Your task to perform on an android device: Go to wifi settings Image 0: 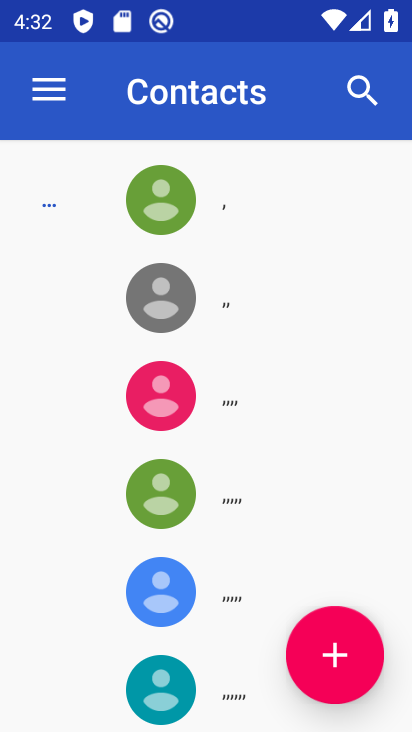
Step 0: press home button
Your task to perform on an android device: Go to wifi settings Image 1: 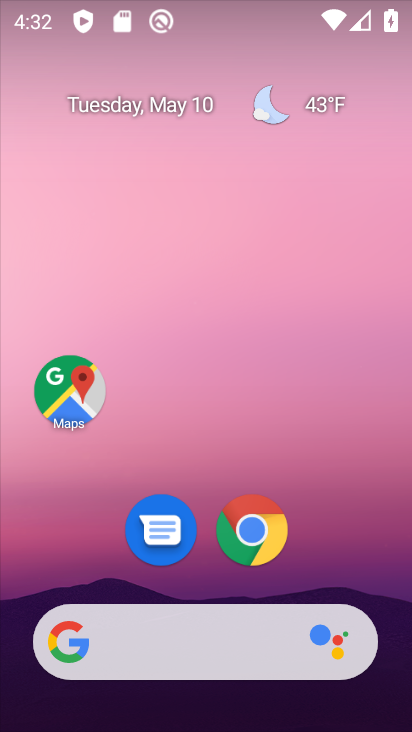
Step 1: drag from (348, 570) to (323, 103)
Your task to perform on an android device: Go to wifi settings Image 2: 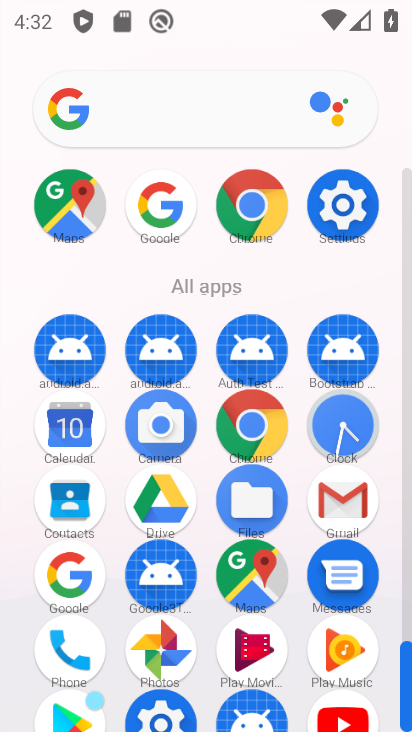
Step 2: click (347, 277)
Your task to perform on an android device: Go to wifi settings Image 3: 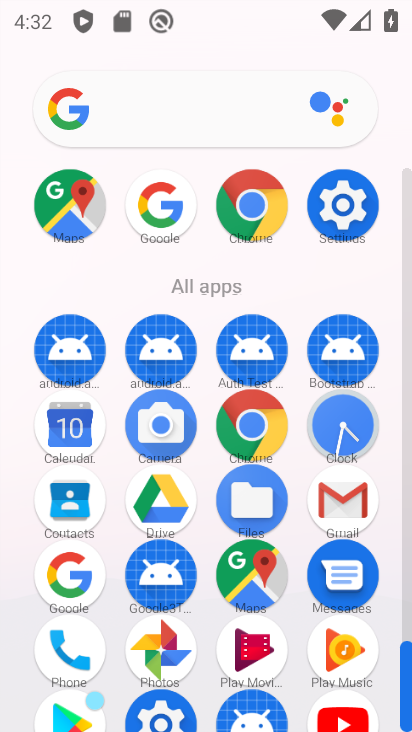
Step 3: click (359, 200)
Your task to perform on an android device: Go to wifi settings Image 4: 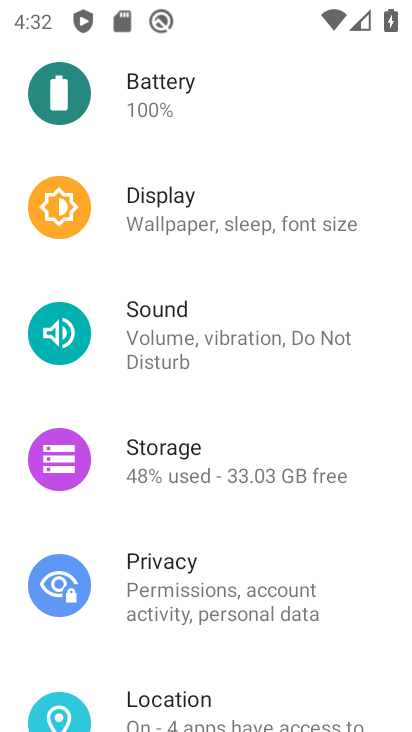
Step 4: drag from (264, 143) to (240, 478)
Your task to perform on an android device: Go to wifi settings Image 5: 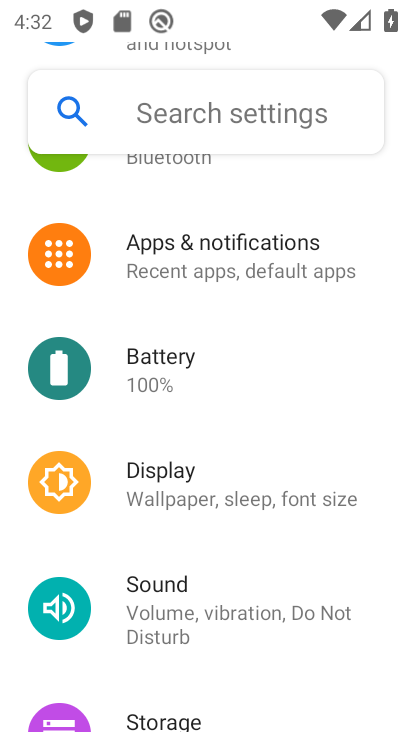
Step 5: drag from (282, 177) to (289, 487)
Your task to perform on an android device: Go to wifi settings Image 6: 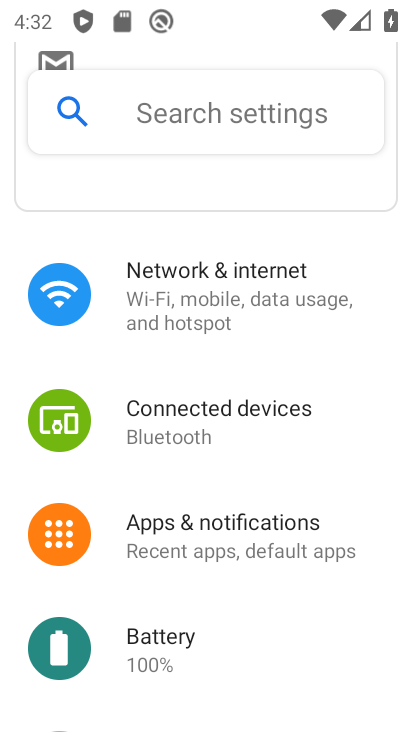
Step 6: click (179, 298)
Your task to perform on an android device: Go to wifi settings Image 7: 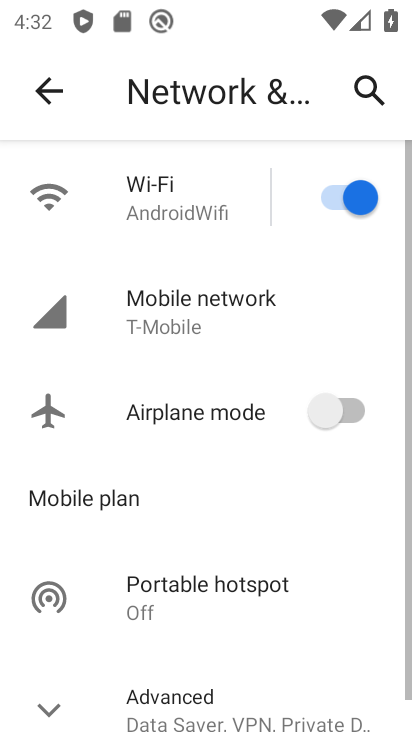
Step 7: click (199, 233)
Your task to perform on an android device: Go to wifi settings Image 8: 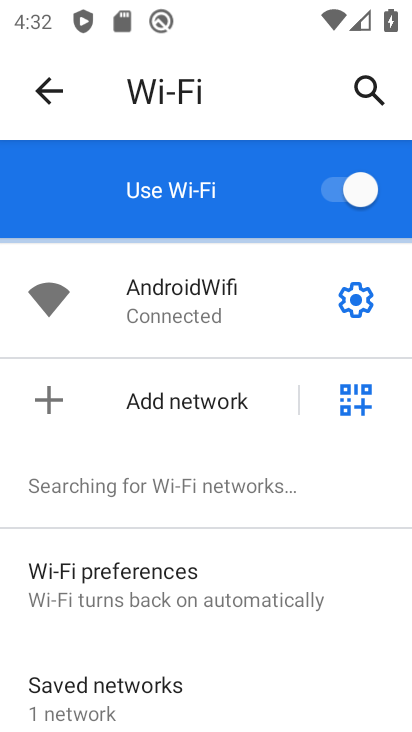
Step 8: click (349, 302)
Your task to perform on an android device: Go to wifi settings Image 9: 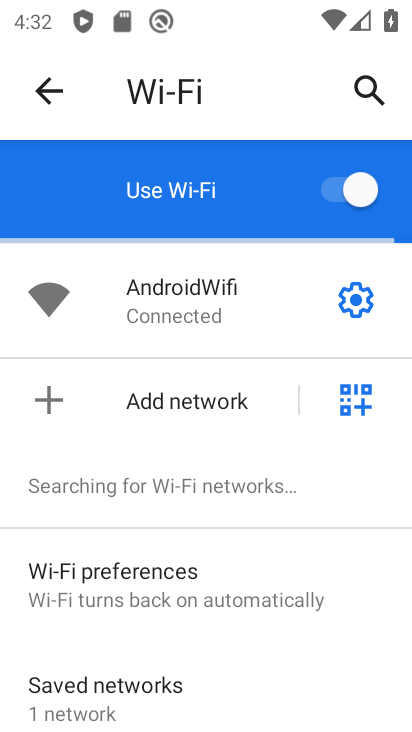
Step 9: click (360, 291)
Your task to perform on an android device: Go to wifi settings Image 10: 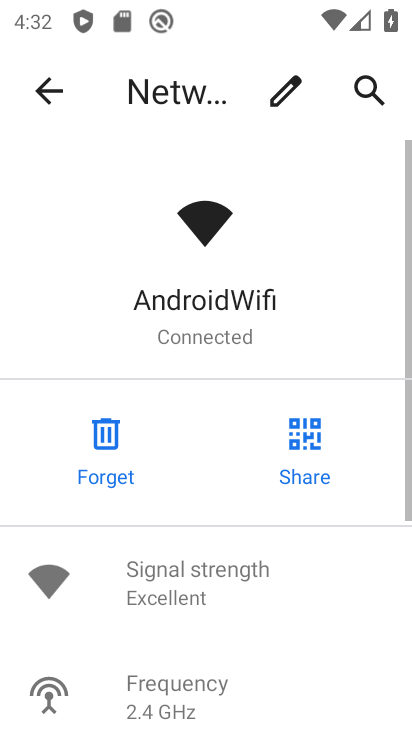
Step 10: task complete